Your task to perform on an android device: turn on sleep mode Image 0: 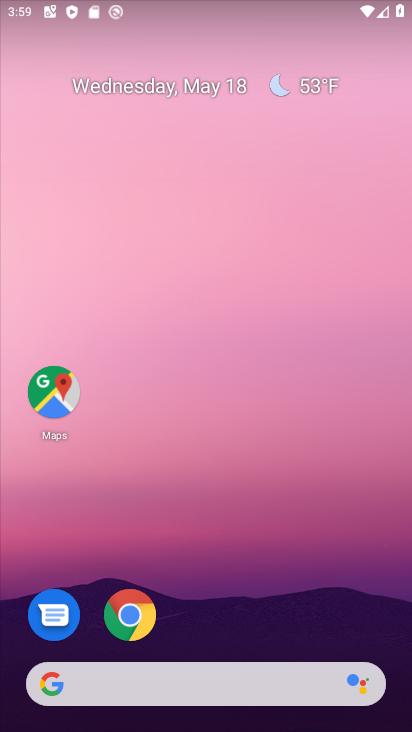
Step 0: drag from (284, 619) to (236, 152)
Your task to perform on an android device: turn on sleep mode Image 1: 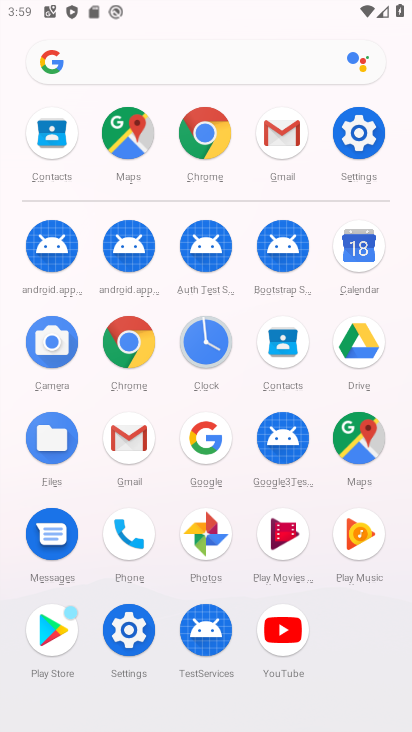
Step 1: click (351, 145)
Your task to perform on an android device: turn on sleep mode Image 2: 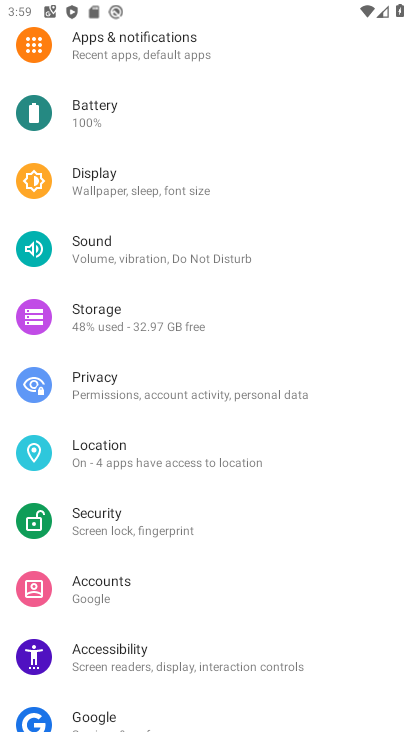
Step 2: click (101, 195)
Your task to perform on an android device: turn on sleep mode Image 3: 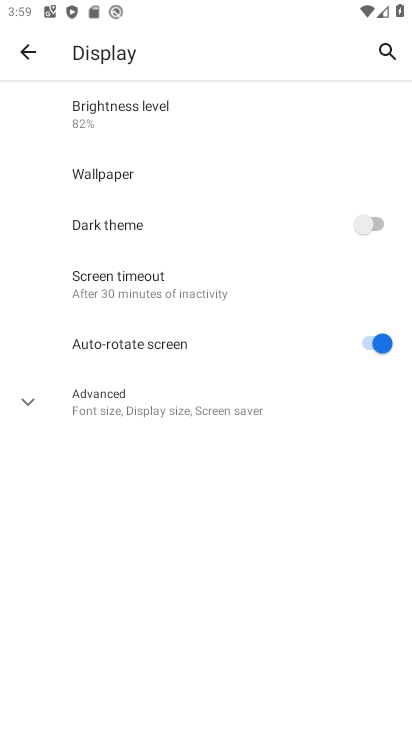
Step 3: click (171, 278)
Your task to perform on an android device: turn on sleep mode Image 4: 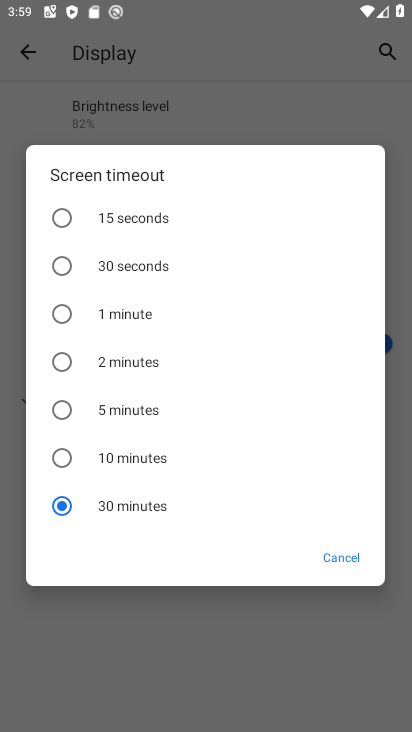
Step 4: task complete